Your task to perform on an android device: visit the assistant section in the google photos Image 0: 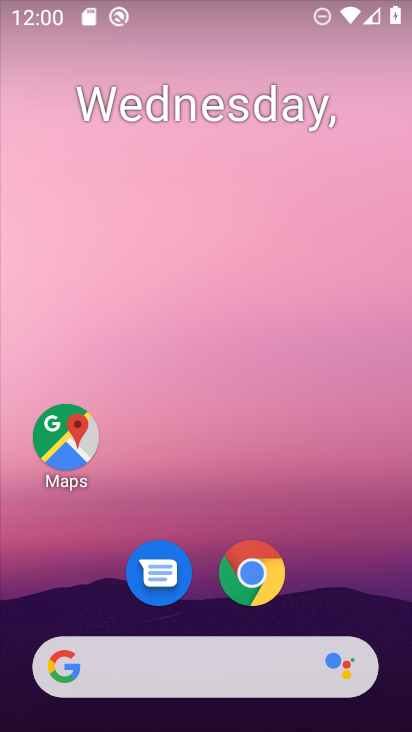
Step 0: drag from (356, 331) to (367, 198)
Your task to perform on an android device: visit the assistant section in the google photos Image 1: 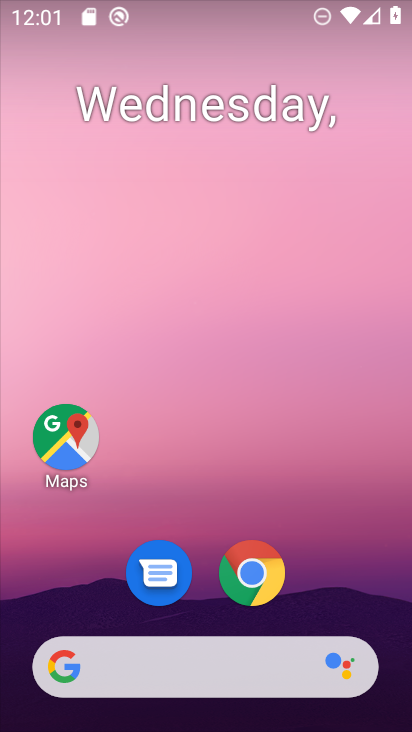
Step 1: drag from (354, 529) to (213, 156)
Your task to perform on an android device: visit the assistant section in the google photos Image 2: 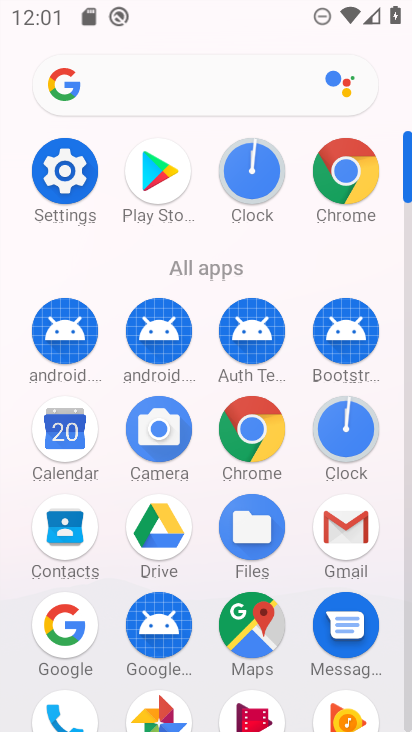
Step 2: click (161, 704)
Your task to perform on an android device: visit the assistant section in the google photos Image 3: 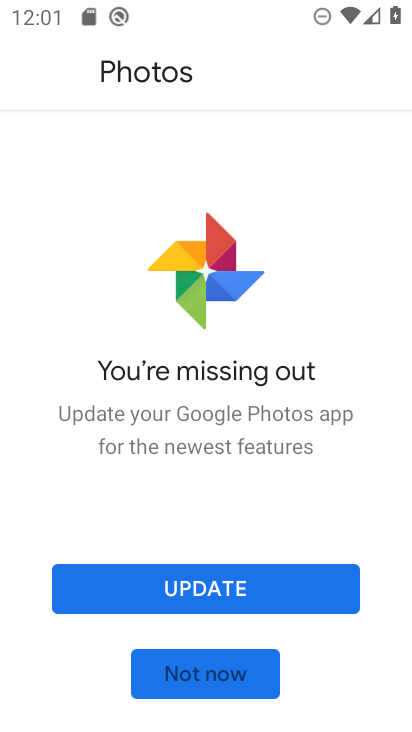
Step 3: click (247, 668)
Your task to perform on an android device: visit the assistant section in the google photos Image 4: 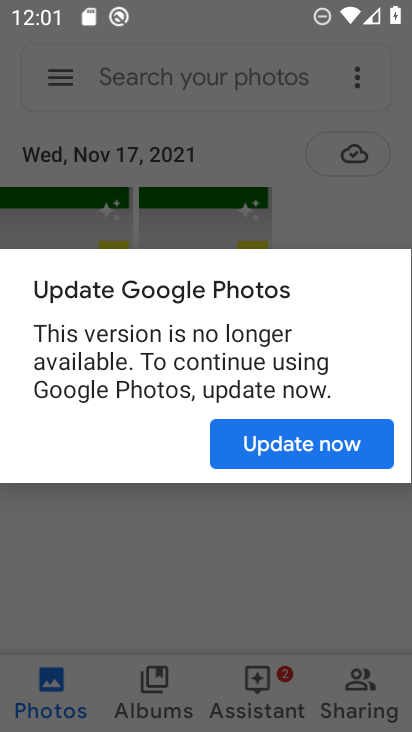
Step 4: click (354, 457)
Your task to perform on an android device: visit the assistant section in the google photos Image 5: 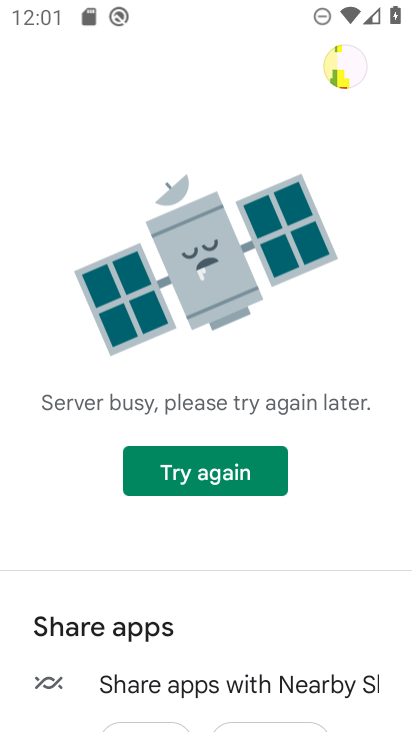
Step 5: task complete